Your task to perform on an android device: install app "Google Home" Image 0: 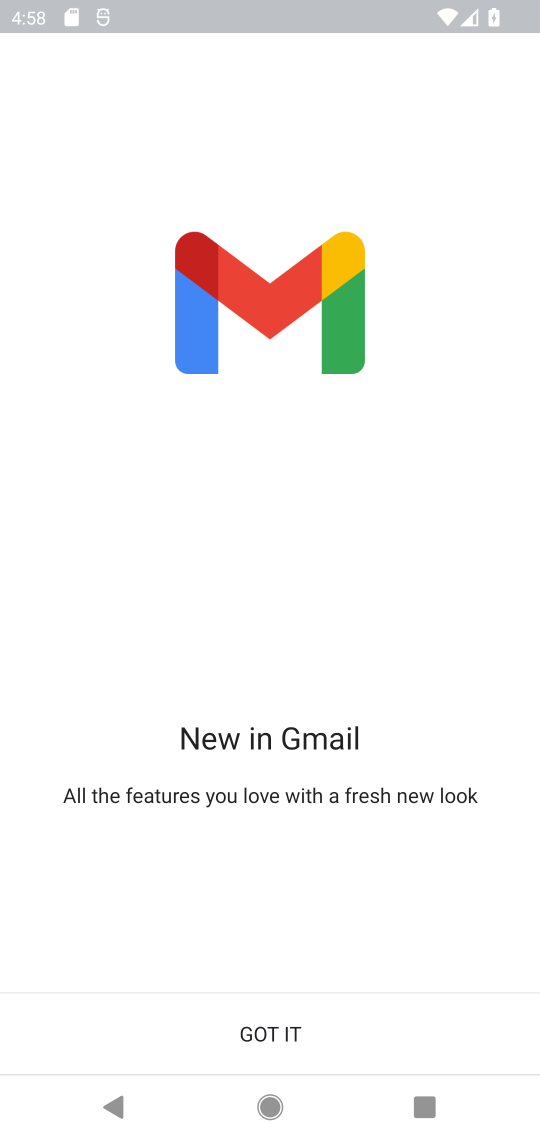
Step 0: press home button
Your task to perform on an android device: install app "Google Home" Image 1: 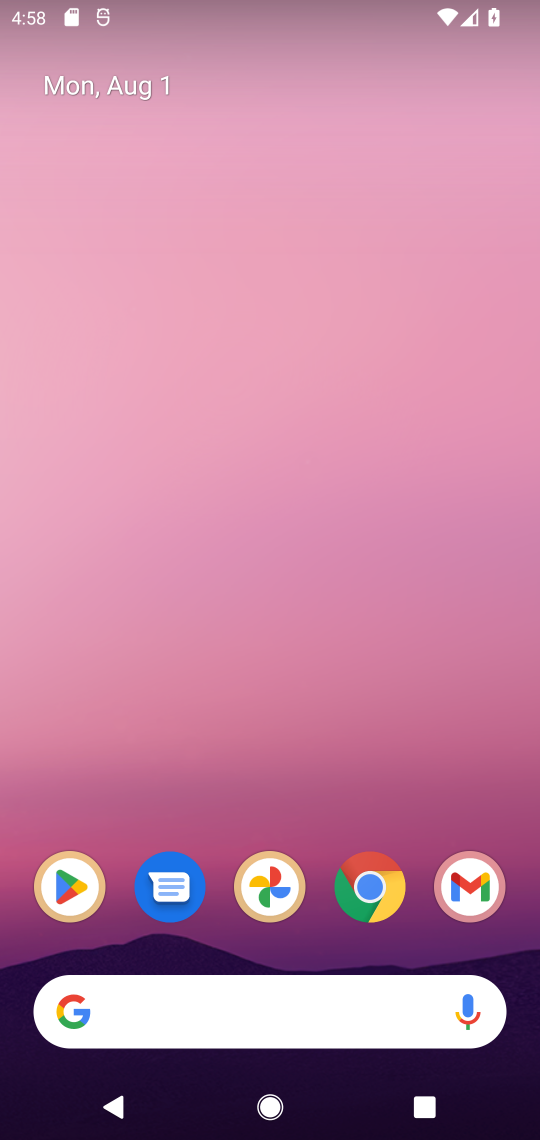
Step 1: click (50, 865)
Your task to perform on an android device: install app "Google Home" Image 2: 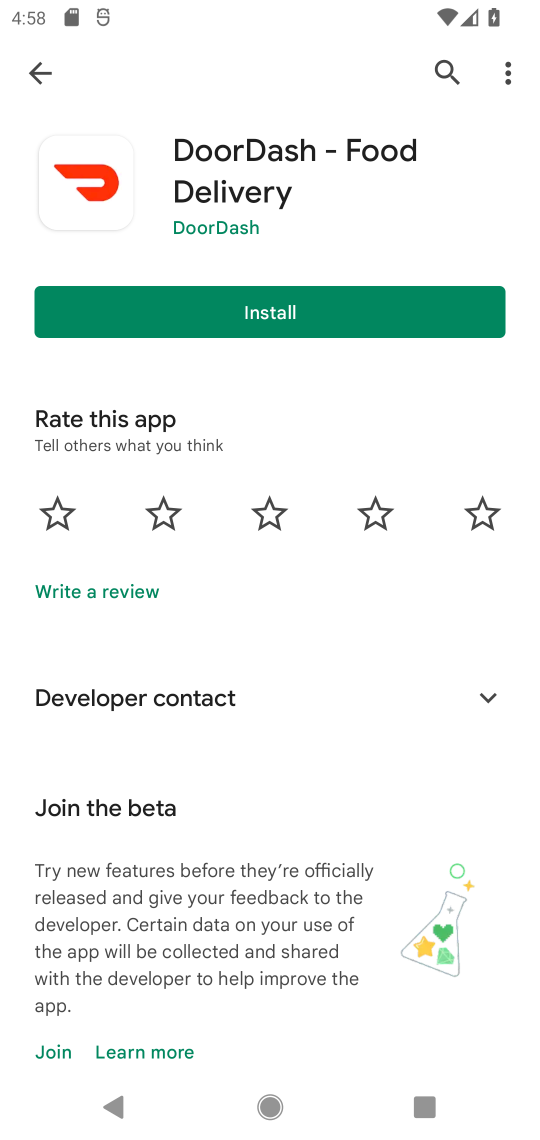
Step 2: click (47, 82)
Your task to perform on an android device: install app "Google Home" Image 3: 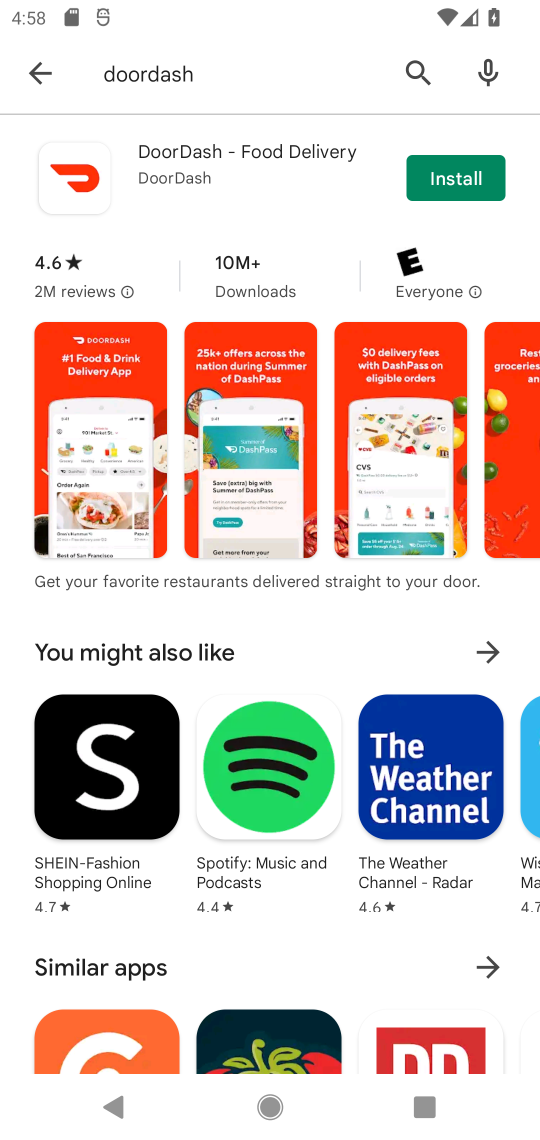
Step 3: click (421, 70)
Your task to perform on an android device: install app "Google Home" Image 4: 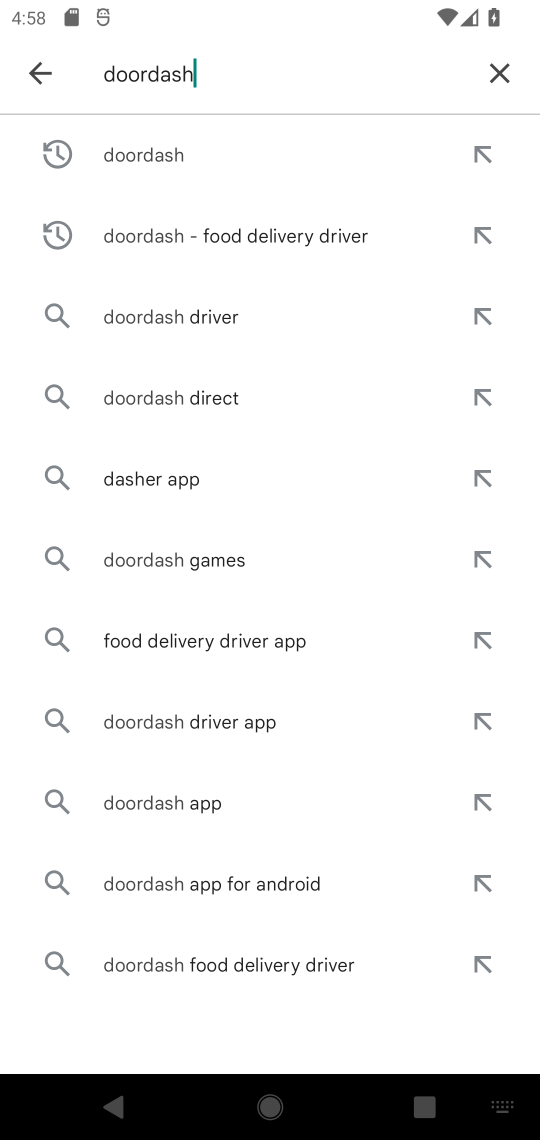
Step 4: click (498, 67)
Your task to perform on an android device: install app "Google Home" Image 5: 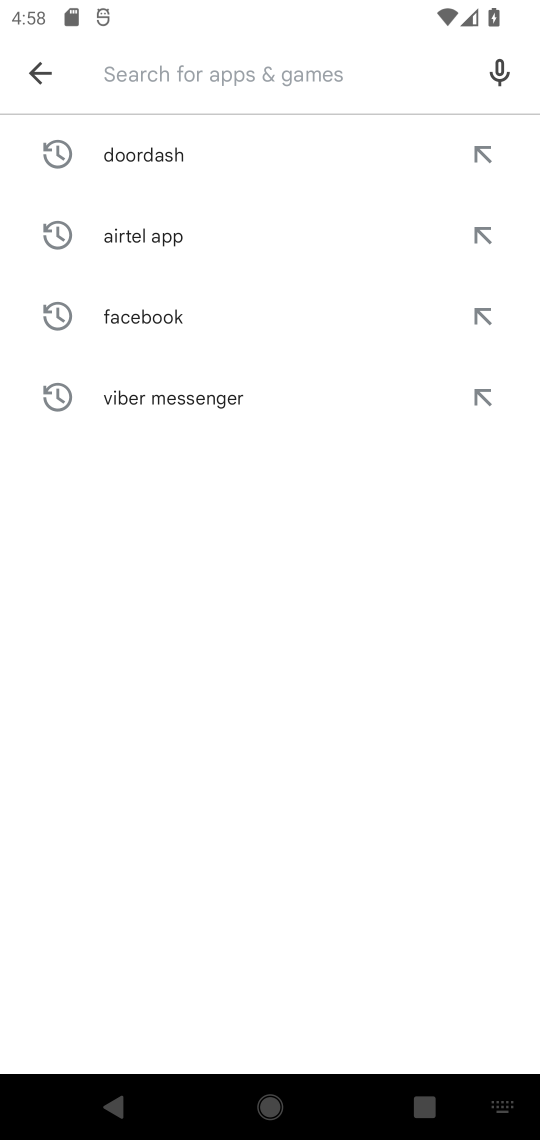
Step 5: type "Google Home"
Your task to perform on an android device: install app "Google Home" Image 6: 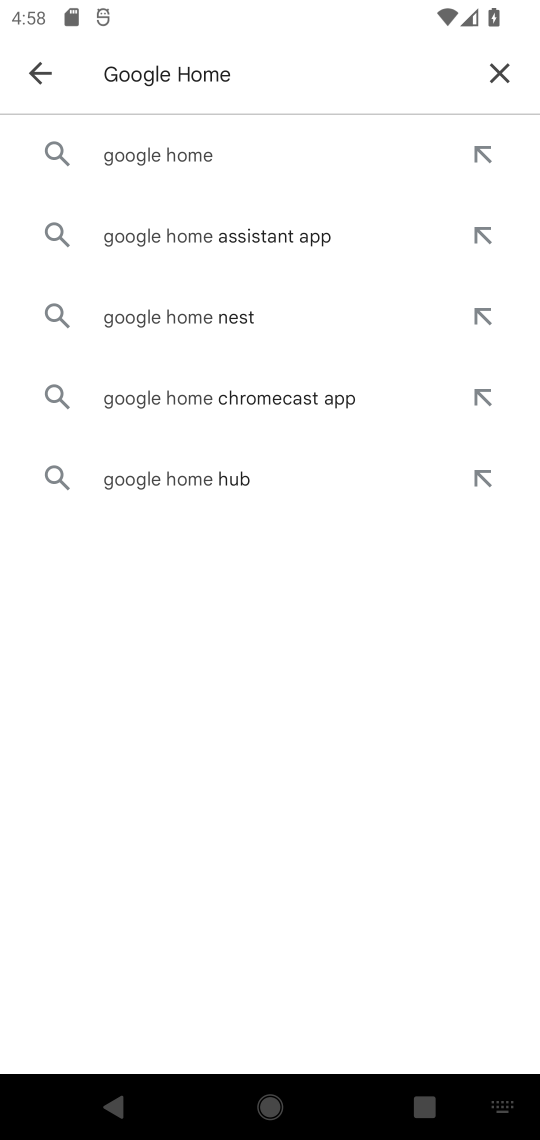
Step 6: click (227, 170)
Your task to perform on an android device: install app "Google Home" Image 7: 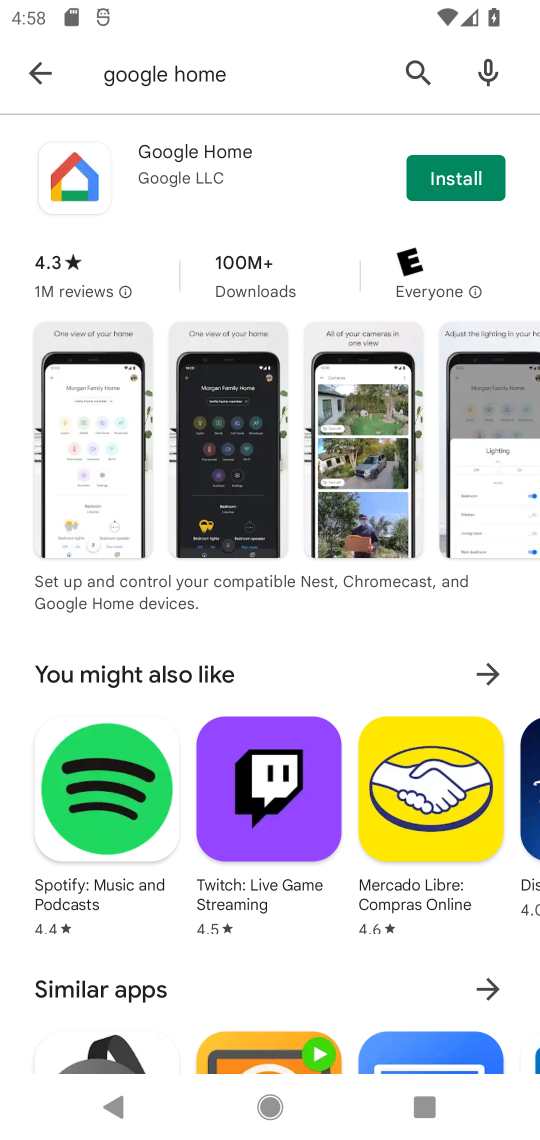
Step 7: click (462, 177)
Your task to perform on an android device: install app "Google Home" Image 8: 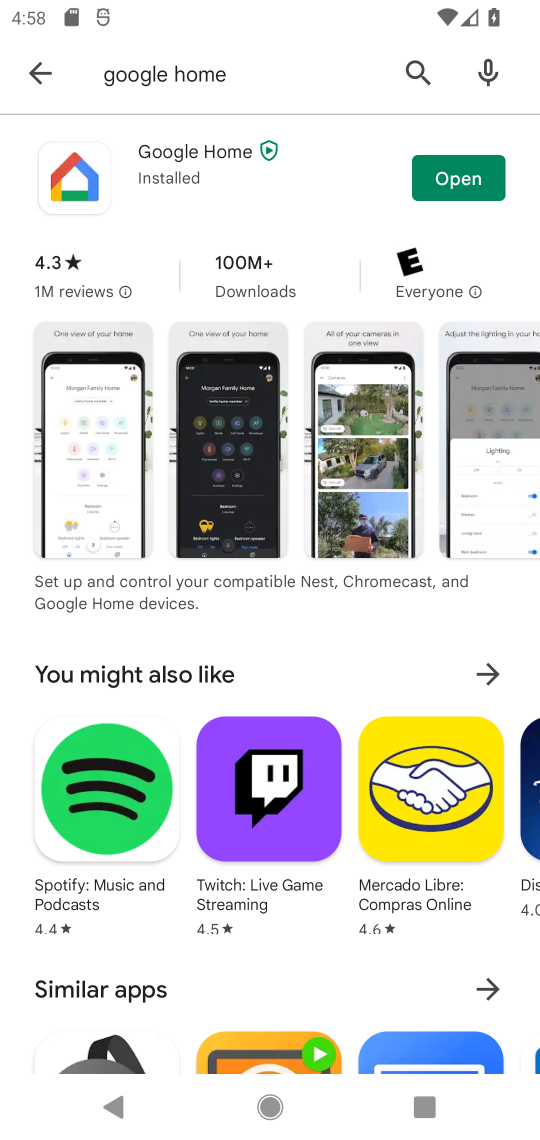
Step 8: task complete